Your task to perform on an android device: View the shopping cart on ebay.com. Search for dell xps on ebay.com, select the first entry, and add it to the cart. Image 0: 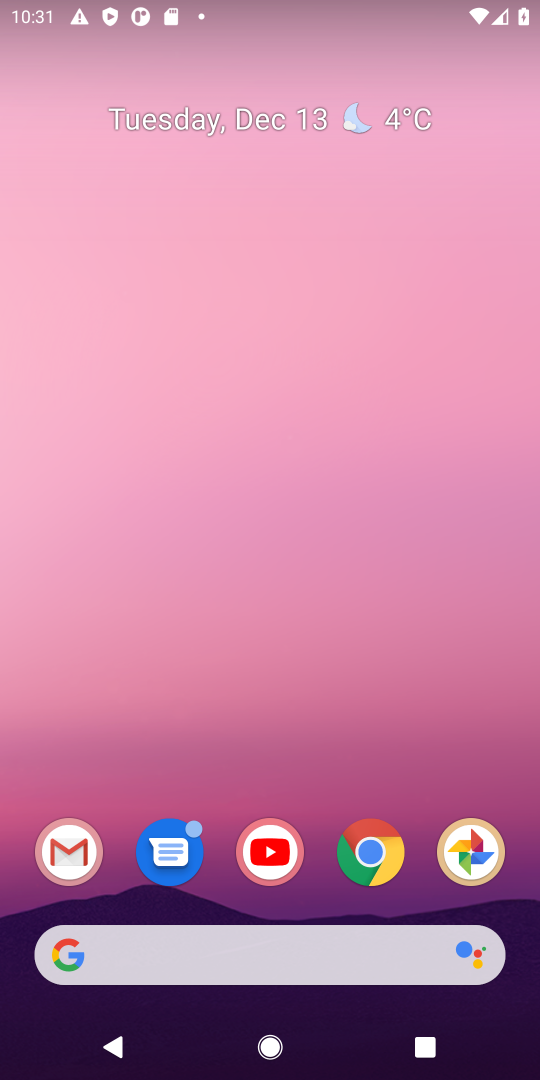
Step 0: press home button
Your task to perform on an android device: View the shopping cart on ebay.com. Search for dell xps on ebay.com, select the first entry, and add it to the cart. Image 1: 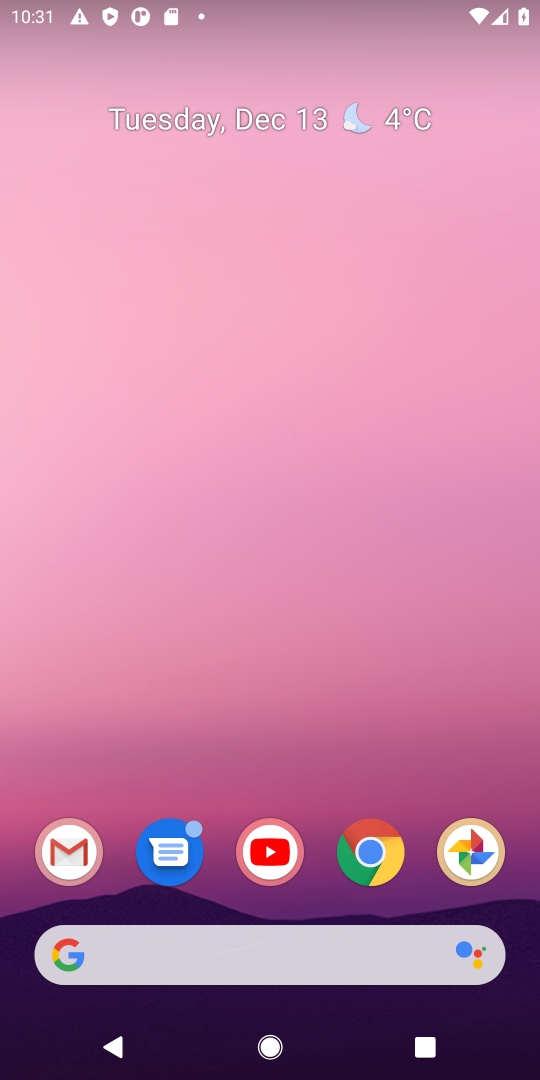
Step 1: click (113, 945)
Your task to perform on an android device: View the shopping cart on ebay.com. Search for dell xps on ebay.com, select the first entry, and add it to the cart. Image 2: 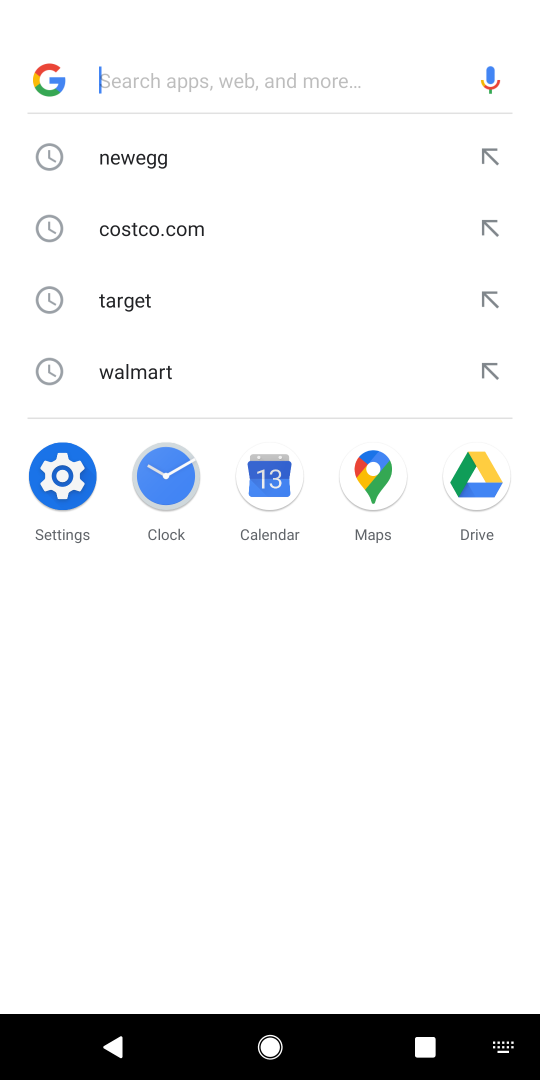
Step 2: type "ebay.com"
Your task to perform on an android device: View the shopping cart on ebay.com. Search for dell xps on ebay.com, select the first entry, and add it to the cart. Image 3: 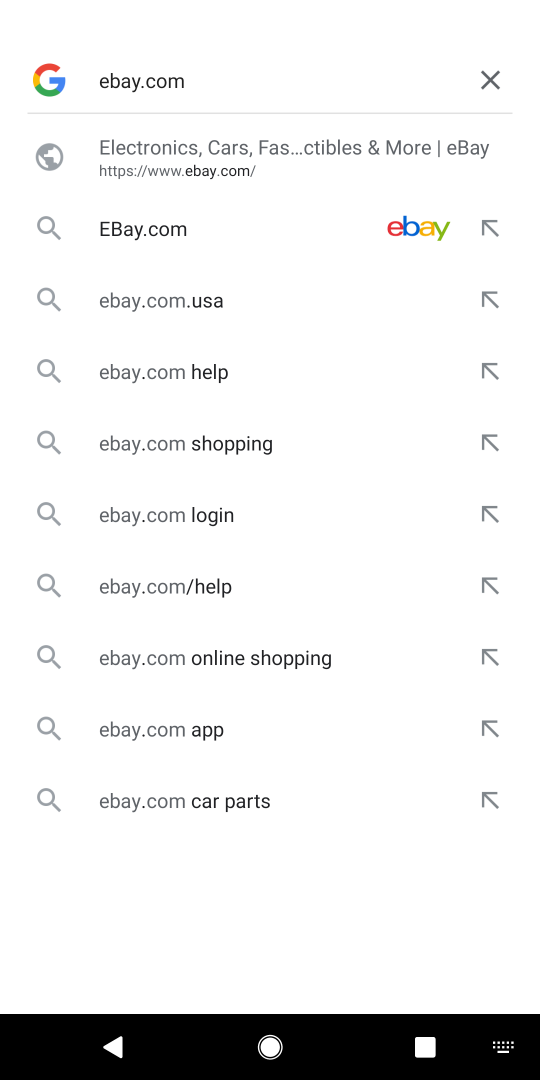
Step 3: press enter
Your task to perform on an android device: View the shopping cart on ebay.com. Search for dell xps on ebay.com, select the first entry, and add it to the cart. Image 4: 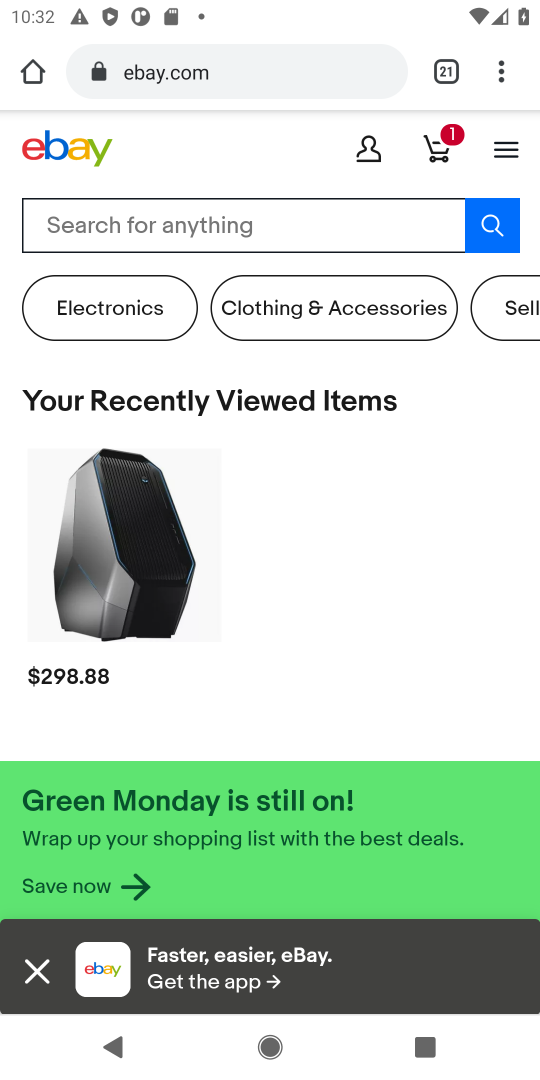
Step 4: click (446, 138)
Your task to perform on an android device: View the shopping cart on ebay.com. Search for dell xps on ebay.com, select the first entry, and add it to the cart. Image 5: 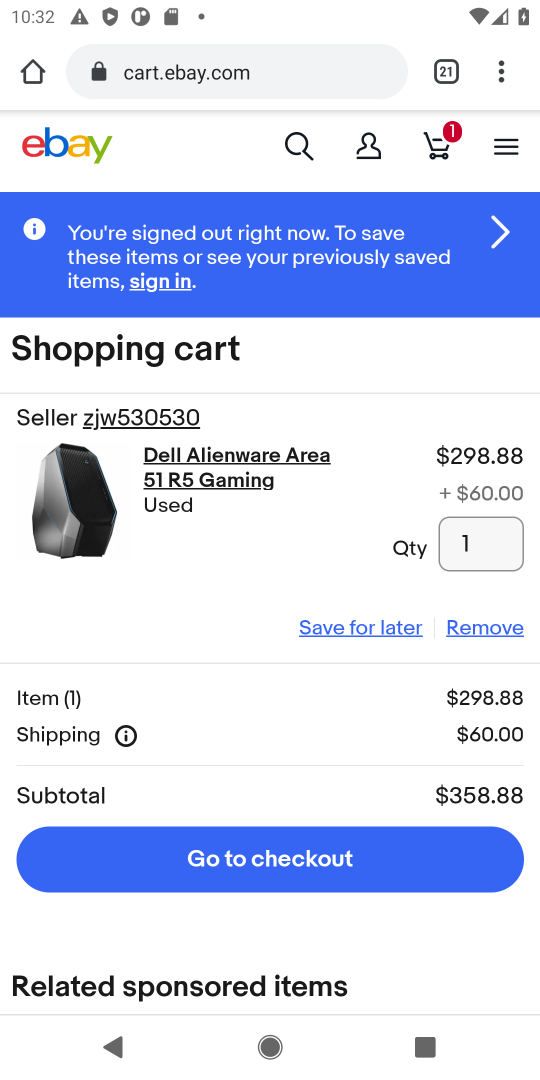
Step 5: click (497, 628)
Your task to perform on an android device: View the shopping cart on ebay.com. Search for dell xps on ebay.com, select the first entry, and add it to the cart. Image 6: 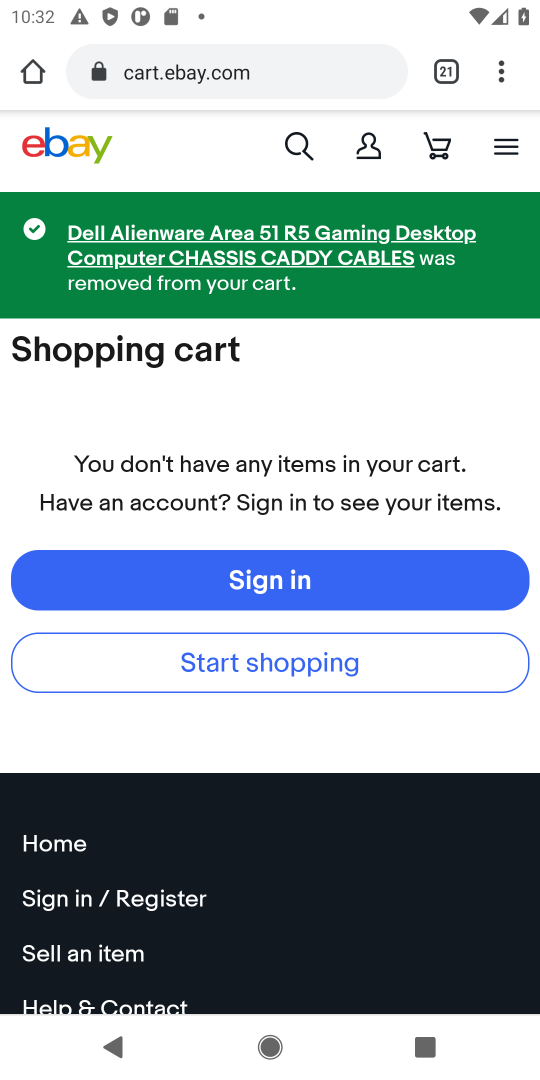
Step 6: click (299, 139)
Your task to perform on an android device: View the shopping cart on ebay.com. Search for dell xps on ebay.com, select the first entry, and add it to the cart. Image 7: 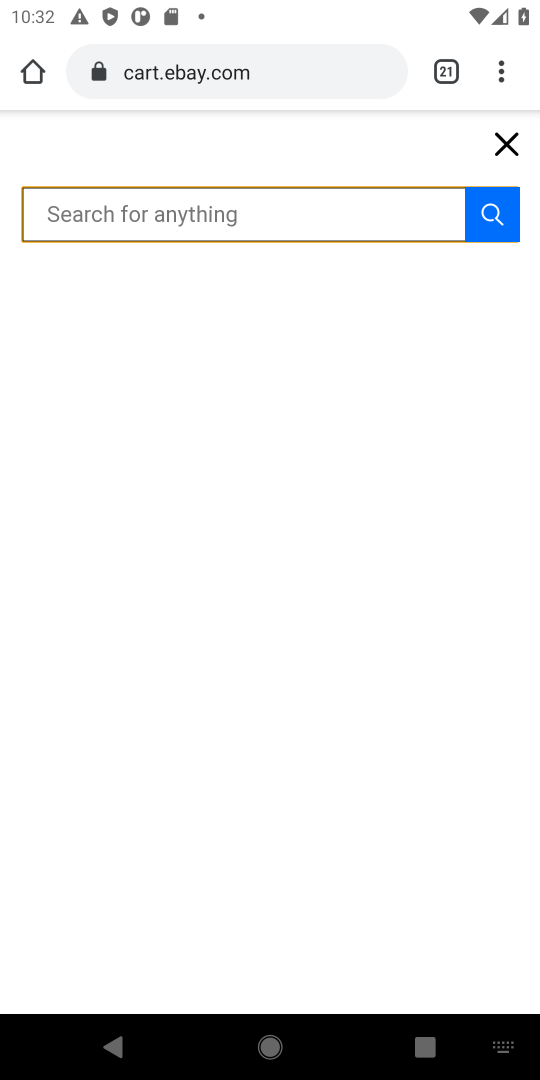
Step 7: type "dell xps"
Your task to perform on an android device: View the shopping cart on ebay.com. Search for dell xps on ebay.com, select the first entry, and add it to the cart. Image 8: 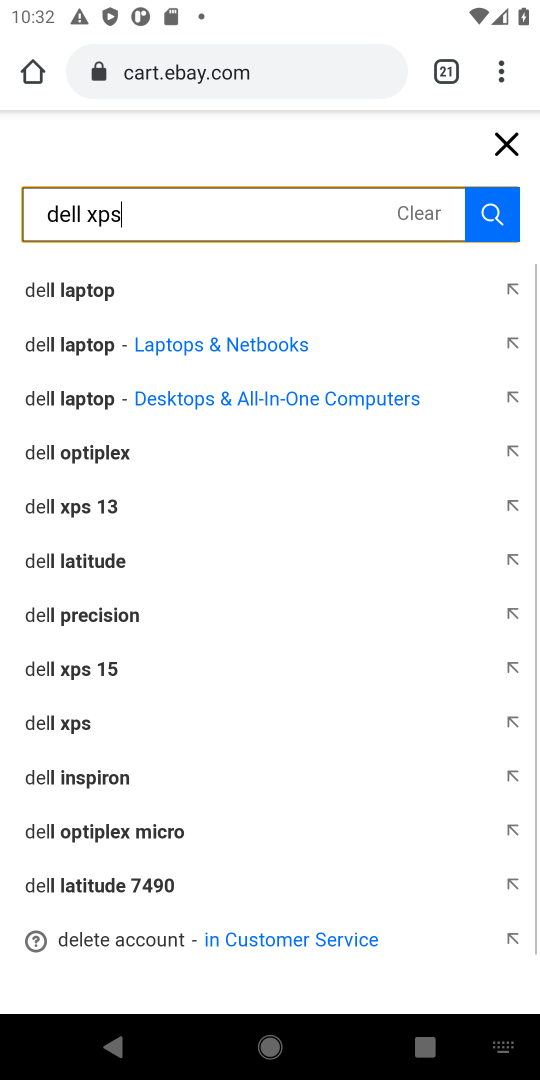
Step 8: press enter
Your task to perform on an android device: View the shopping cart on ebay.com. Search for dell xps on ebay.com, select the first entry, and add it to the cart. Image 9: 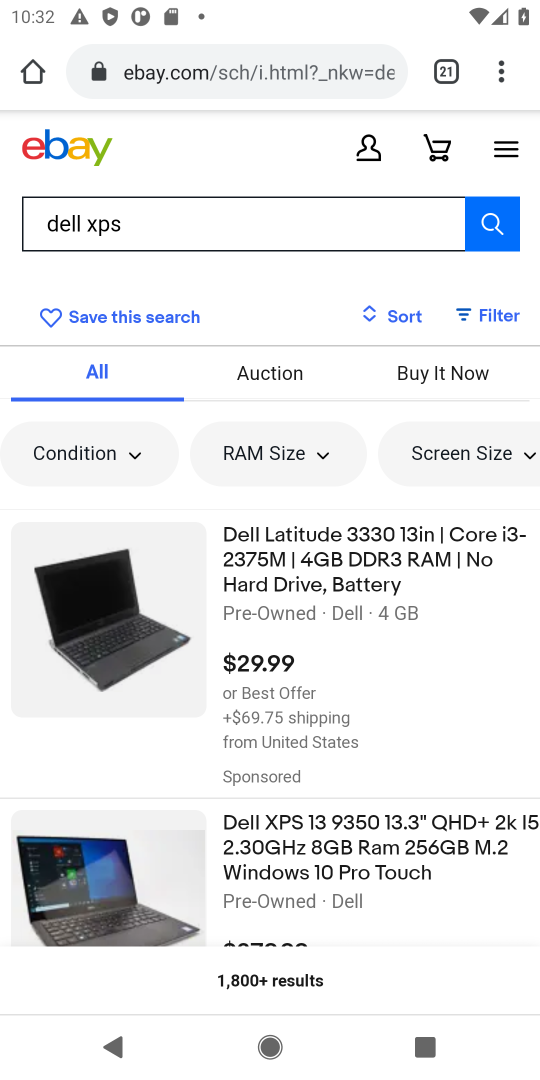
Step 9: click (323, 872)
Your task to perform on an android device: View the shopping cart on ebay.com. Search for dell xps on ebay.com, select the first entry, and add it to the cart. Image 10: 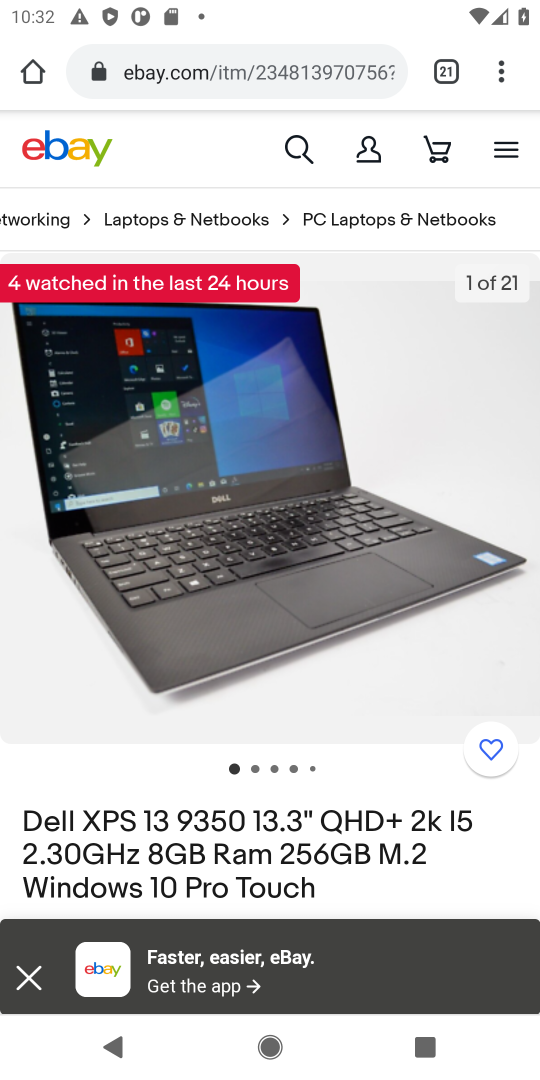
Step 10: drag from (273, 849) to (296, 500)
Your task to perform on an android device: View the shopping cart on ebay.com. Search for dell xps on ebay.com, select the first entry, and add it to the cart. Image 11: 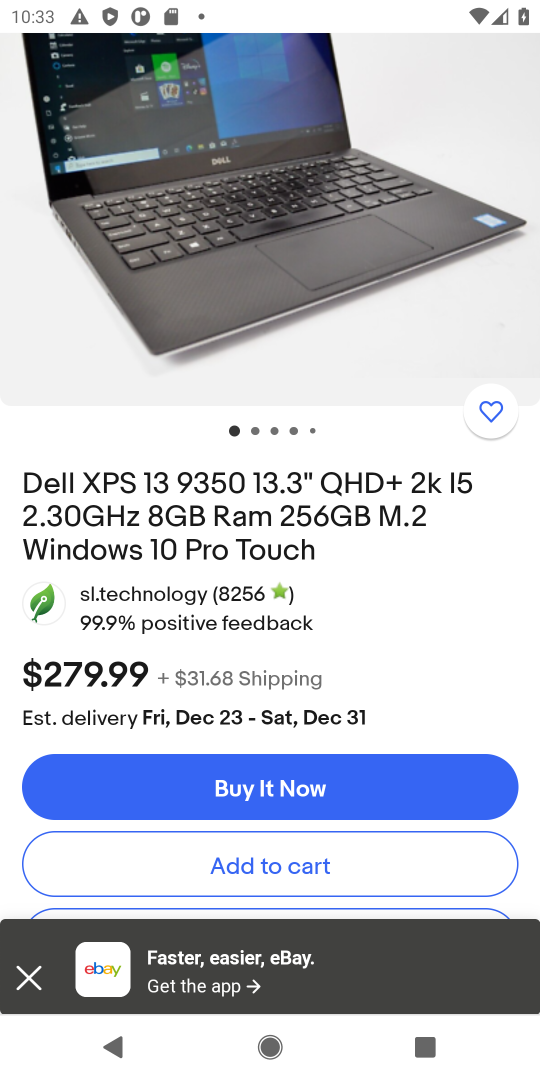
Step 11: drag from (227, 851) to (283, 400)
Your task to perform on an android device: View the shopping cart on ebay.com. Search for dell xps on ebay.com, select the first entry, and add it to the cart. Image 12: 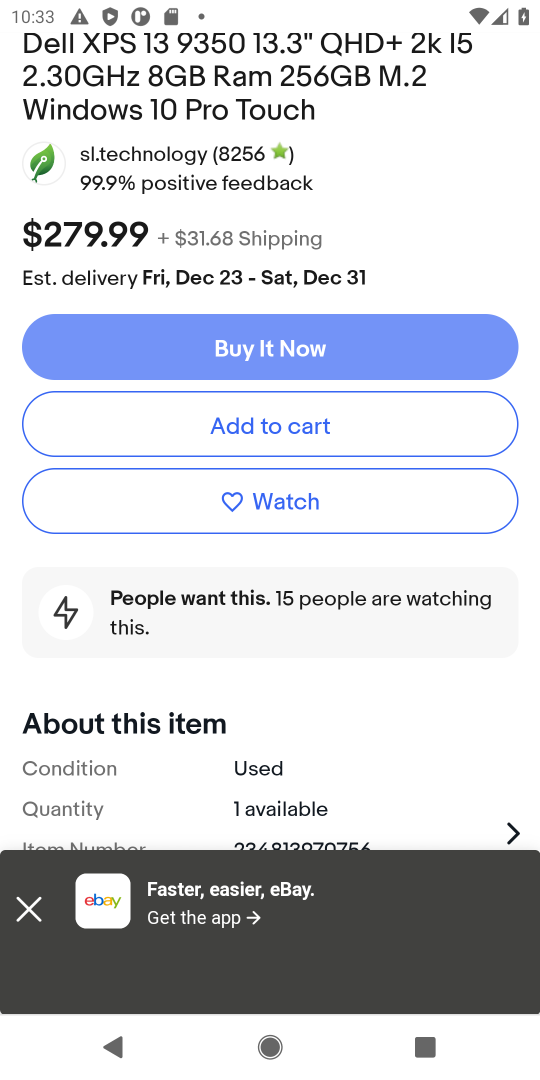
Step 12: click (273, 430)
Your task to perform on an android device: View the shopping cart on ebay.com. Search for dell xps on ebay.com, select the first entry, and add it to the cart. Image 13: 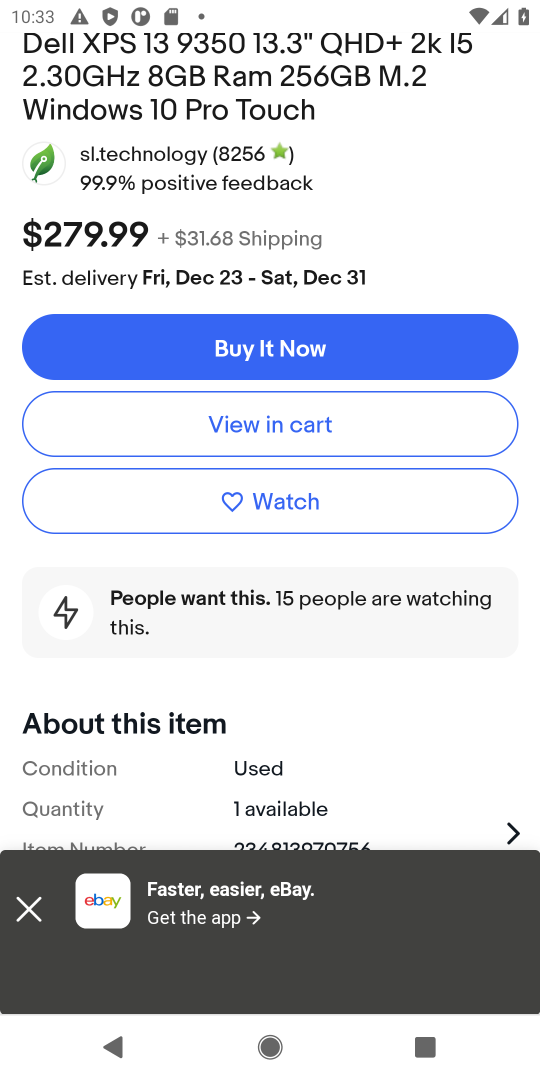
Step 13: task complete